Your task to perform on an android device: What's on my calendar today? Image 0: 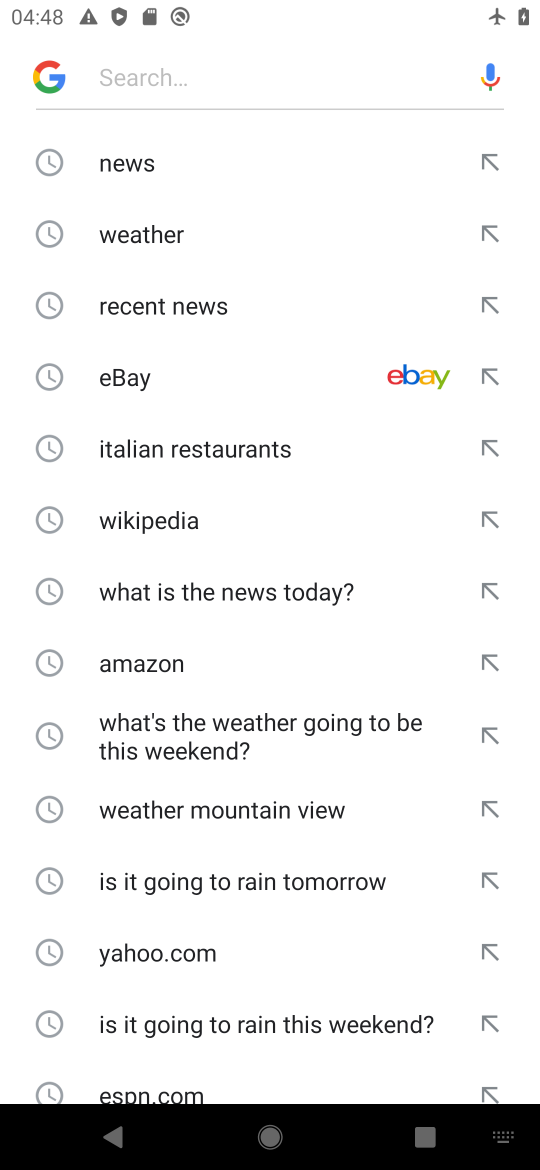
Step 0: press back button
Your task to perform on an android device: What's on my calendar today? Image 1: 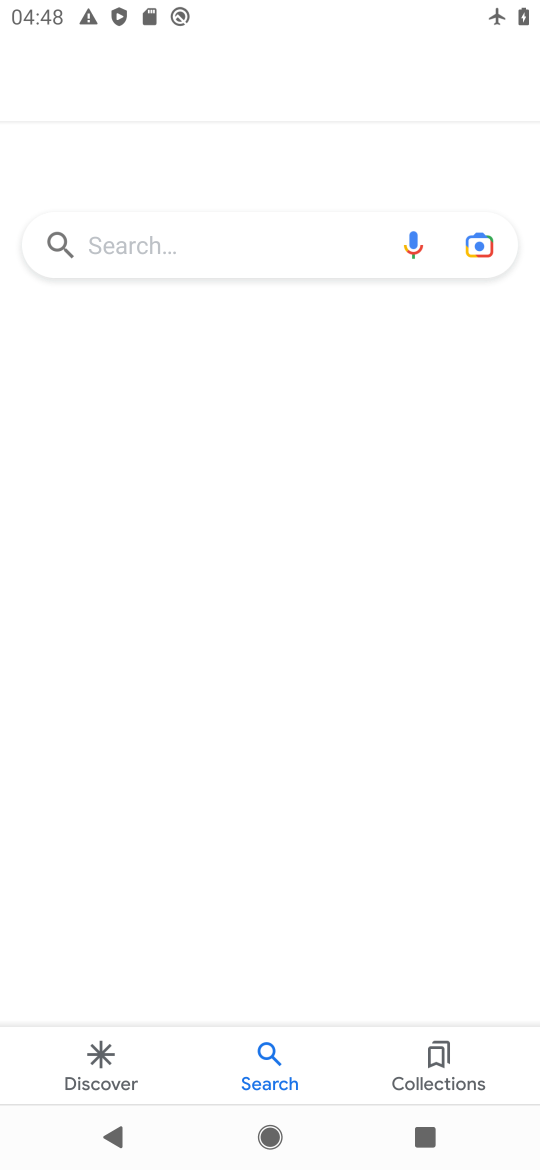
Step 1: press back button
Your task to perform on an android device: What's on my calendar today? Image 2: 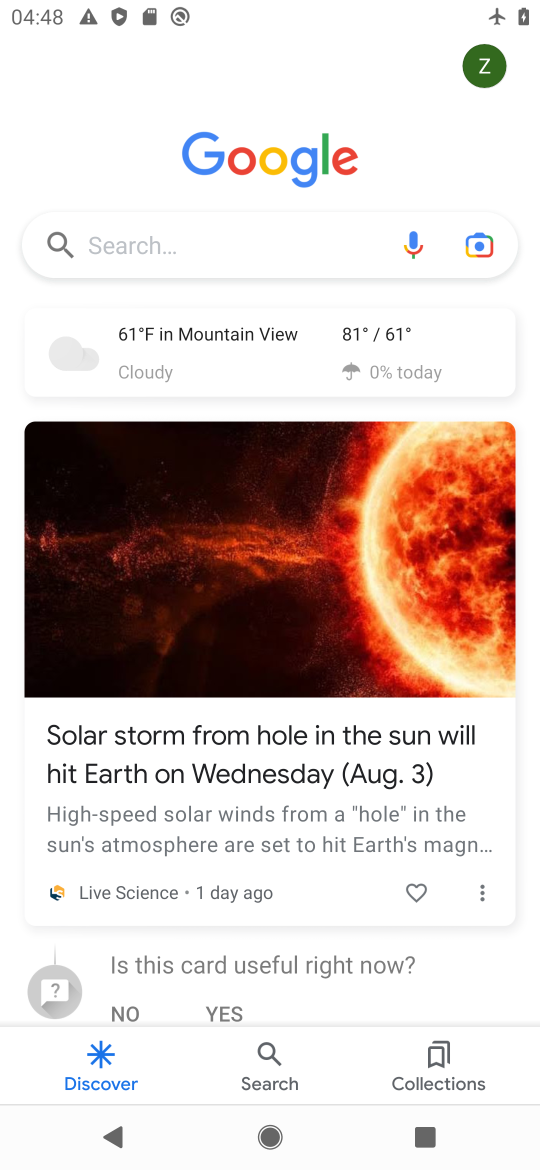
Step 2: press back button
Your task to perform on an android device: What's on my calendar today? Image 3: 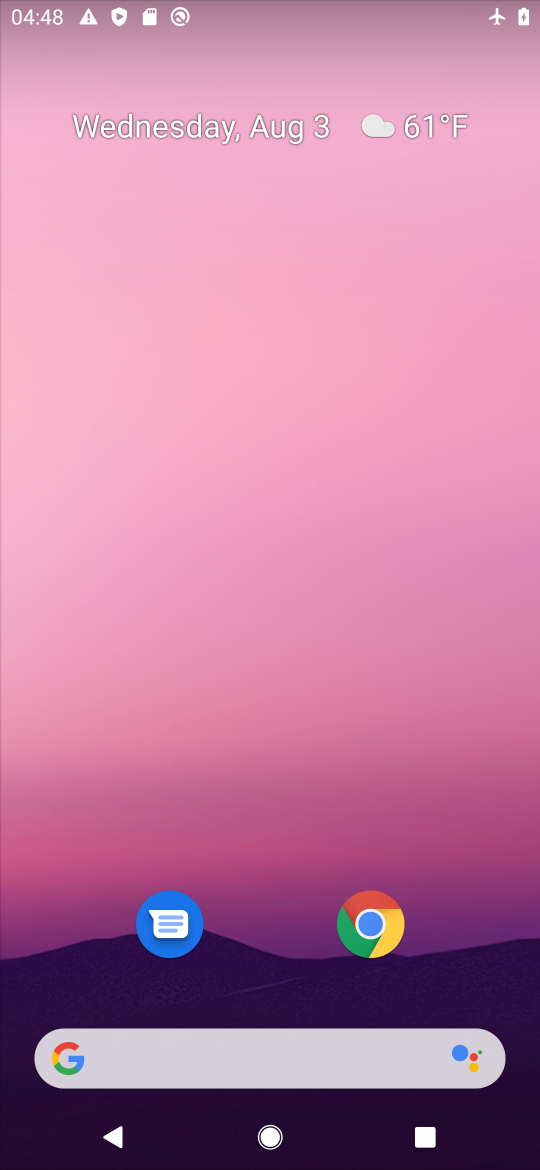
Step 3: drag from (274, 834) to (236, 164)
Your task to perform on an android device: What's on my calendar today? Image 4: 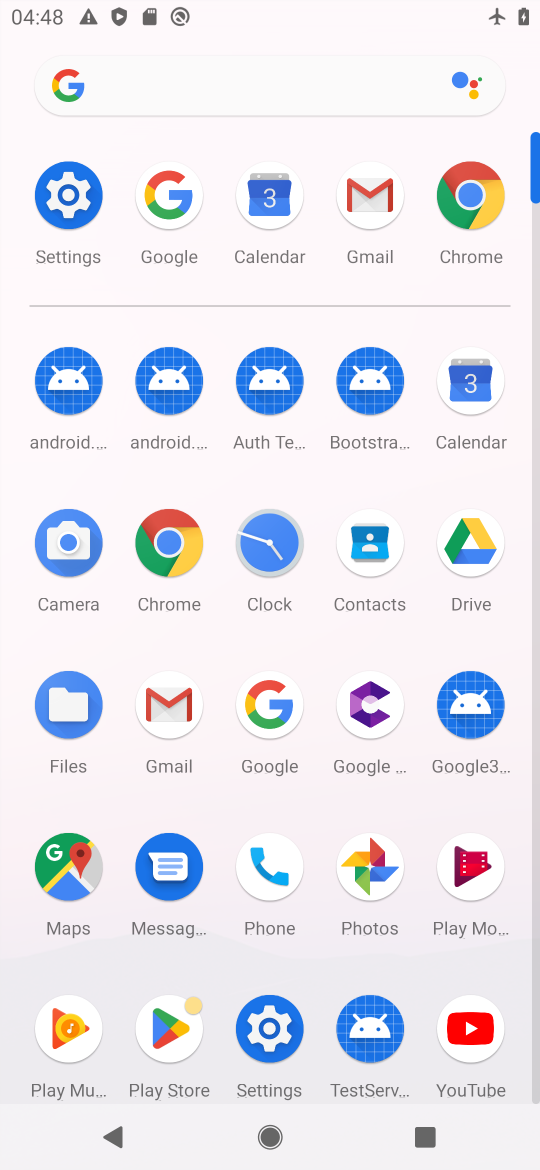
Step 4: click (460, 404)
Your task to perform on an android device: What's on my calendar today? Image 5: 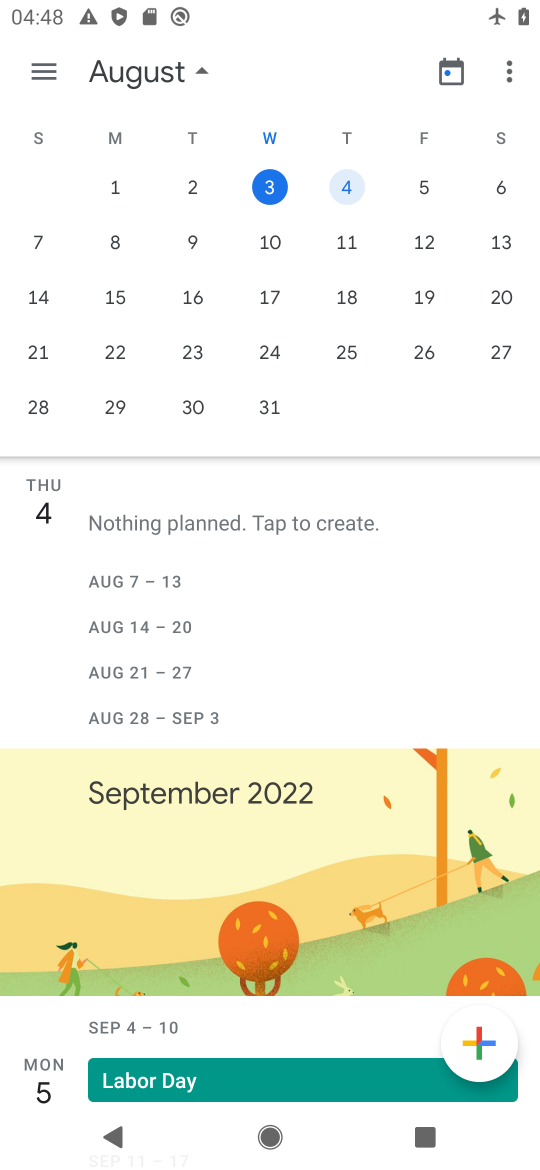
Step 5: click (269, 196)
Your task to perform on an android device: What's on my calendar today? Image 6: 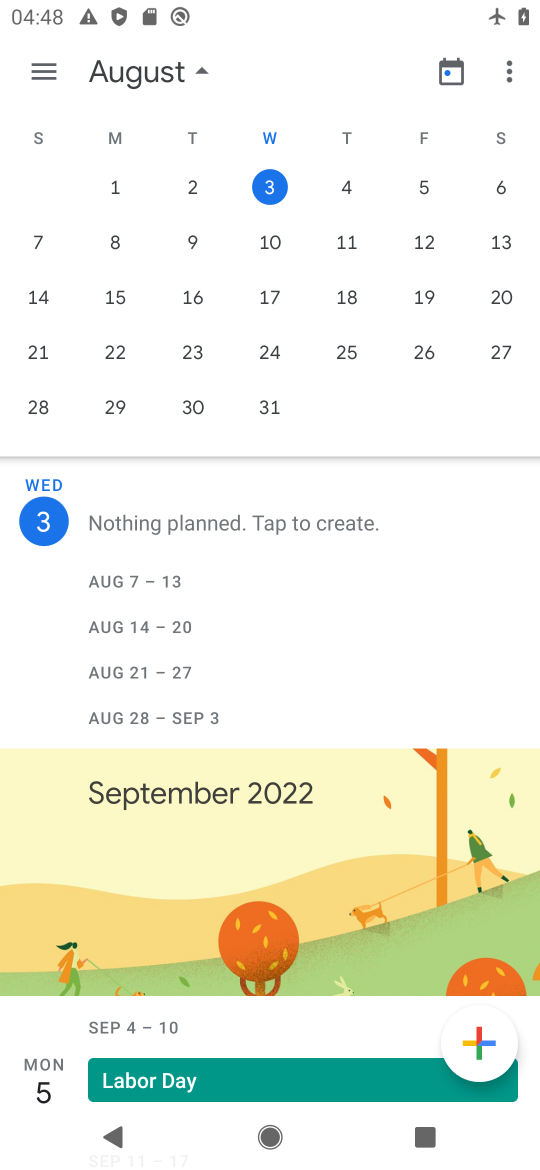
Step 6: task complete